Your task to perform on an android device: open sync settings in chrome Image 0: 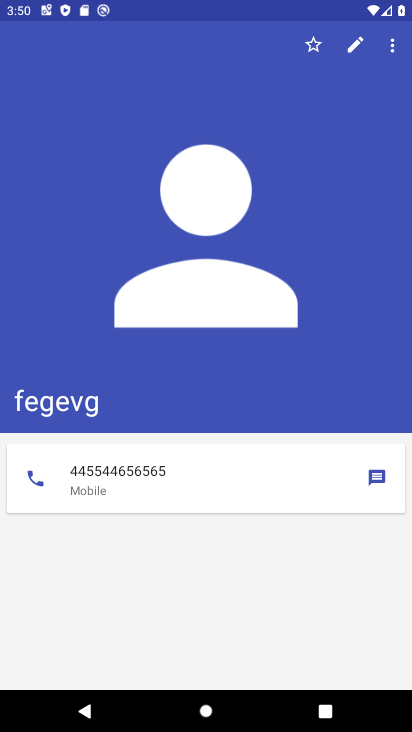
Step 0: press home button
Your task to perform on an android device: open sync settings in chrome Image 1: 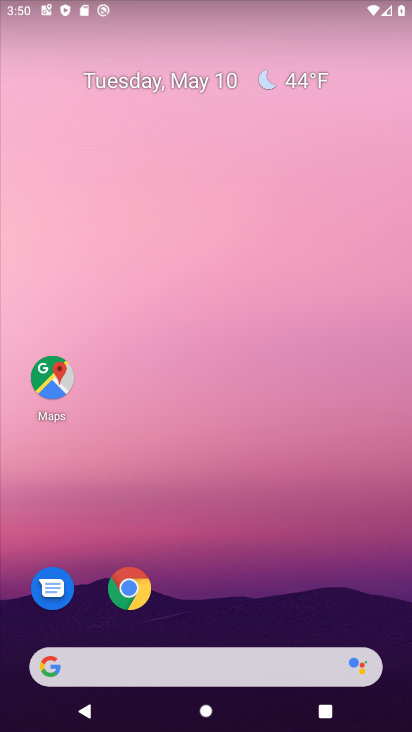
Step 1: click (122, 582)
Your task to perform on an android device: open sync settings in chrome Image 2: 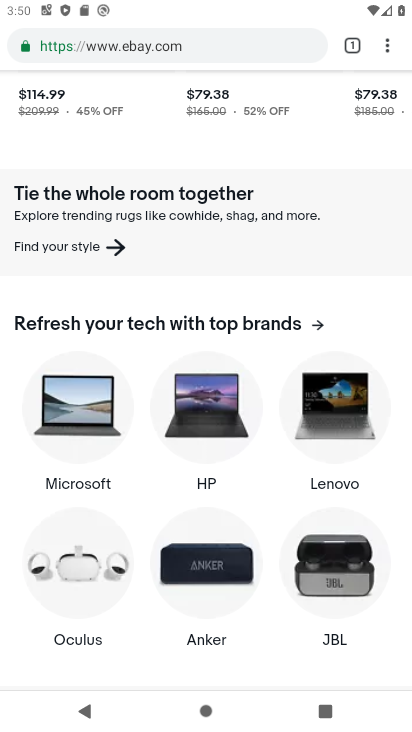
Step 2: click (390, 51)
Your task to perform on an android device: open sync settings in chrome Image 3: 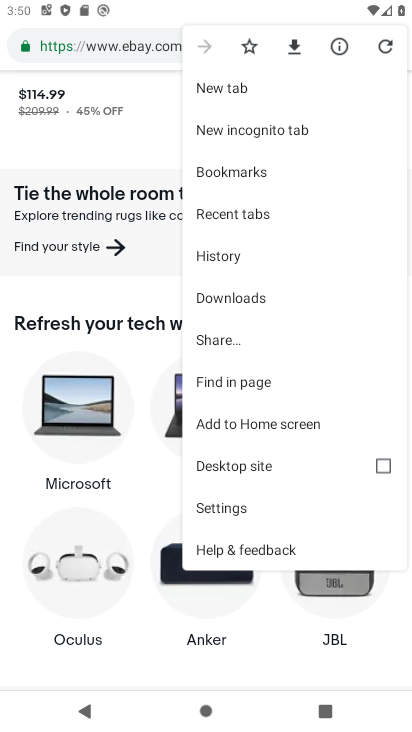
Step 3: click (239, 502)
Your task to perform on an android device: open sync settings in chrome Image 4: 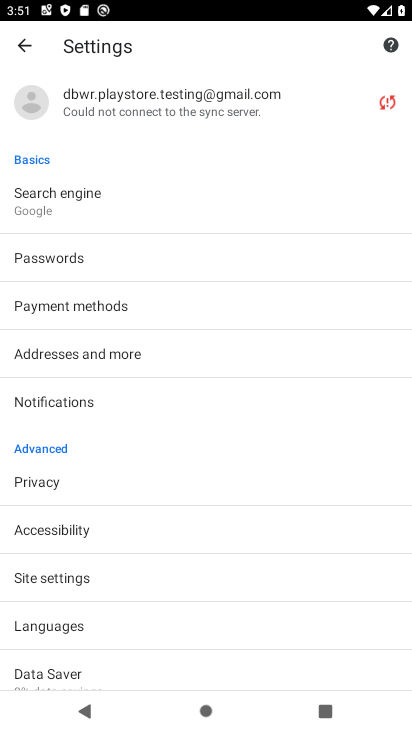
Step 4: click (144, 111)
Your task to perform on an android device: open sync settings in chrome Image 5: 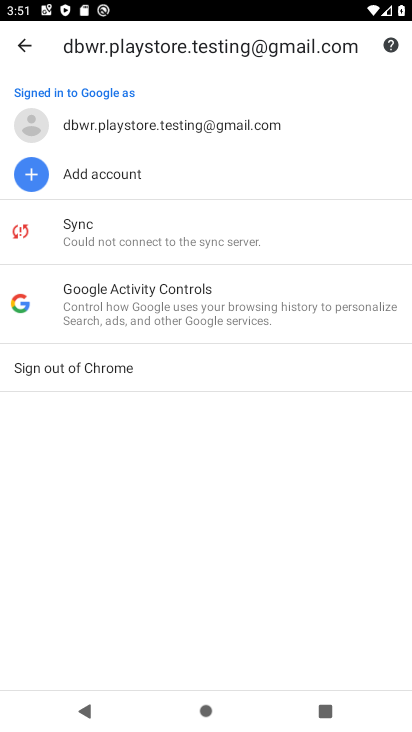
Step 5: click (133, 240)
Your task to perform on an android device: open sync settings in chrome Image 6: 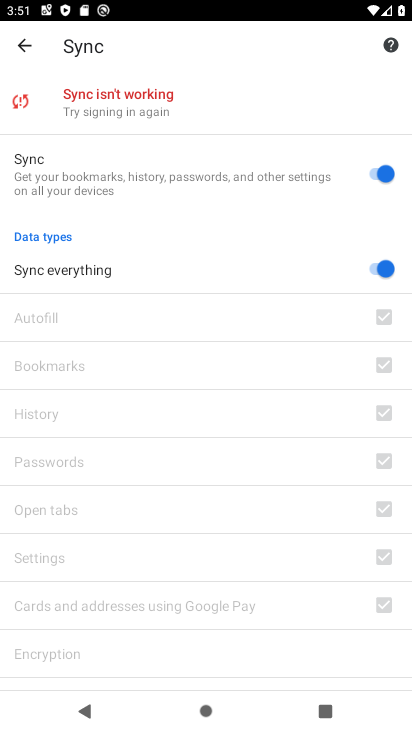
Step 6: task complete